Your task to perform on an android device: turn on airplane mode Image 0: 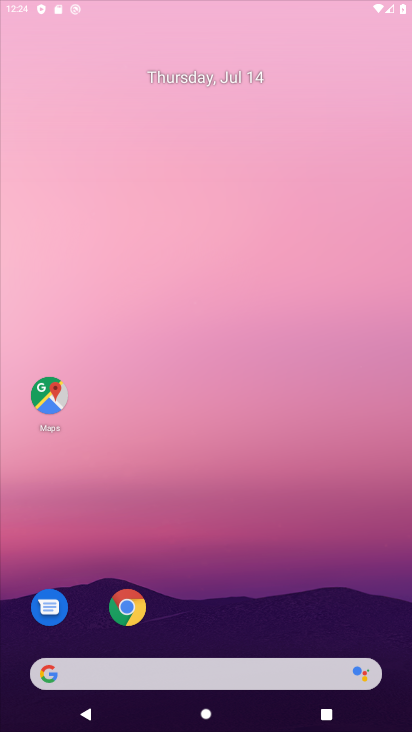
Step 0: drag from (325, 235) to (409, 240)
Your task to perform on an android device: turn on airplane mode Image 1: 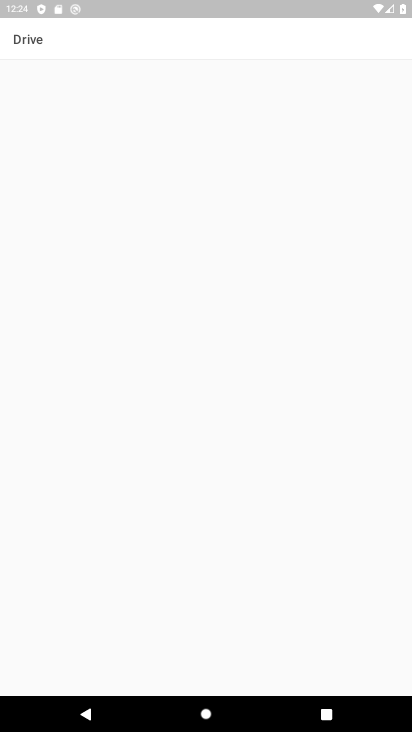
Step 1: press home button
Your task to perform on an android device: turn on airplane mode Image 2: 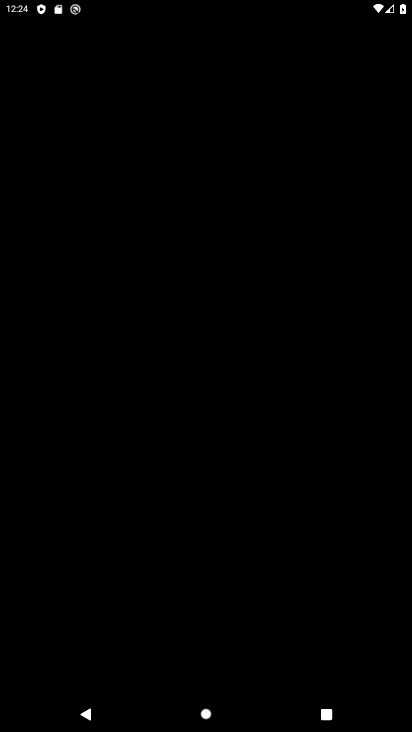
Step 2: drag from (409, 240) to (408, 515)
Your task to perform on an android device: turn on airplane mode Image 3: 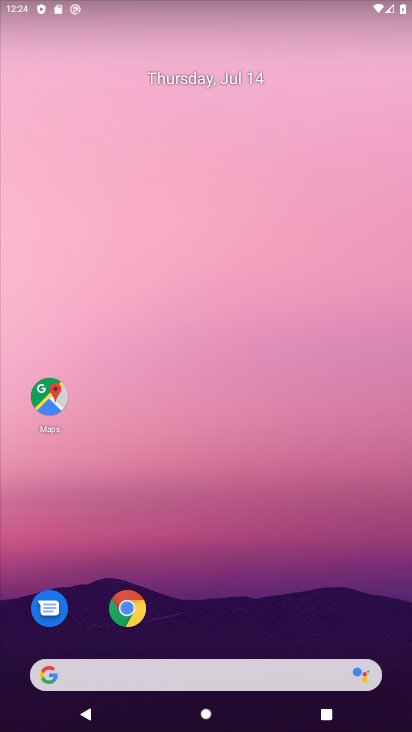
Step 3: drag from (277, 633) to (300, 280)
Your task to perform on an android device: turn on airplane mode Image 4: 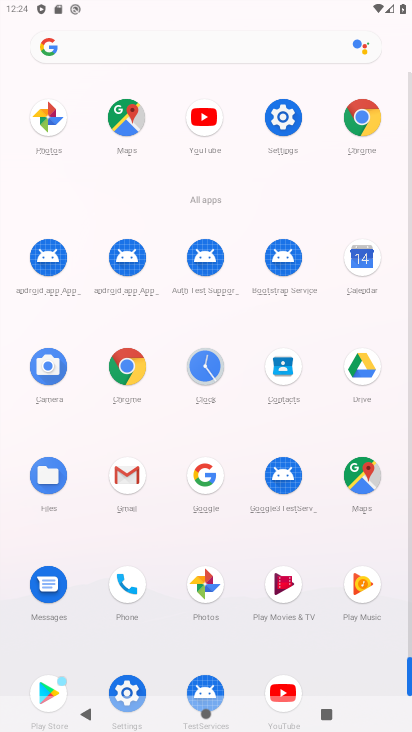
Step 4: click (277, 120)
Your task to perform on an android device: turn on airplane mode Image 5: 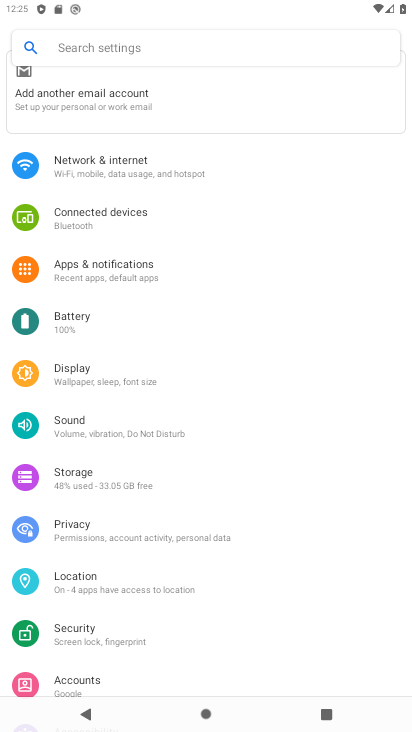
Step 5: drag from (362, 608) to (339, 458)
Your task to perform on an android device: turn on airplane mode Image 6: 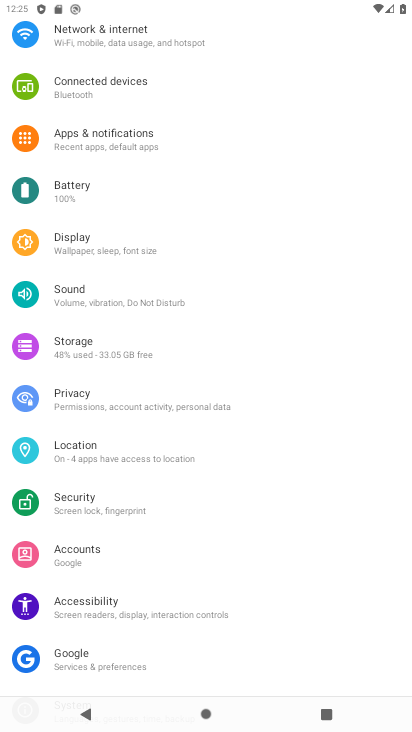
Step 6: drag from (337, 546) to (337, 463)
Your task to perform on an android device: turn on airplane mode Image 7: 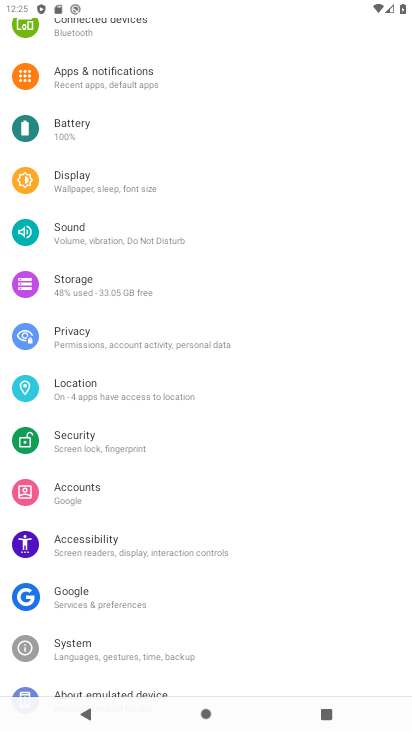
Step 7: drag from (292, 619) to (311, 496)
Your task to perform on an android device: turn on airplane mode Image 8: 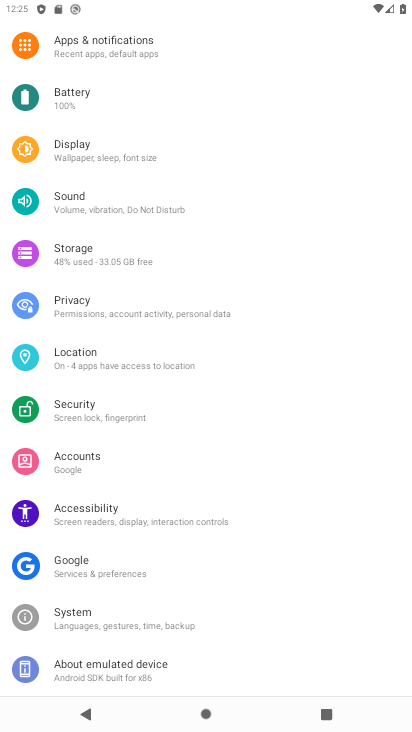
Step 8: drag from (312, 427) to (320, 516)
Your task to perform on an android device: turn on airplane mode Image 9: 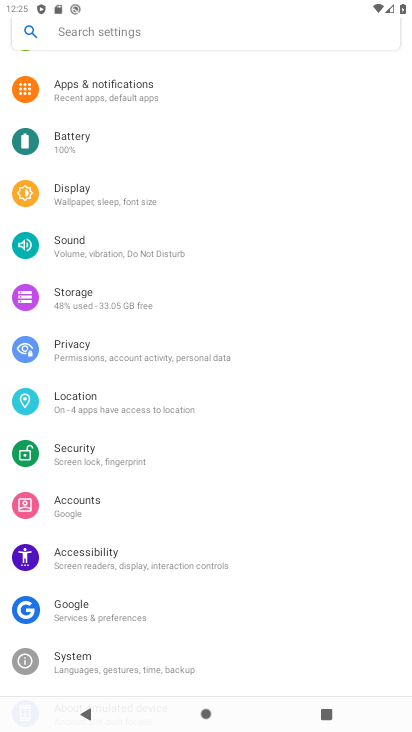
Step 9: drag from (315, 388) to (316, 465)
Your task to perform on an android device: turn on airplane mode Image 10: 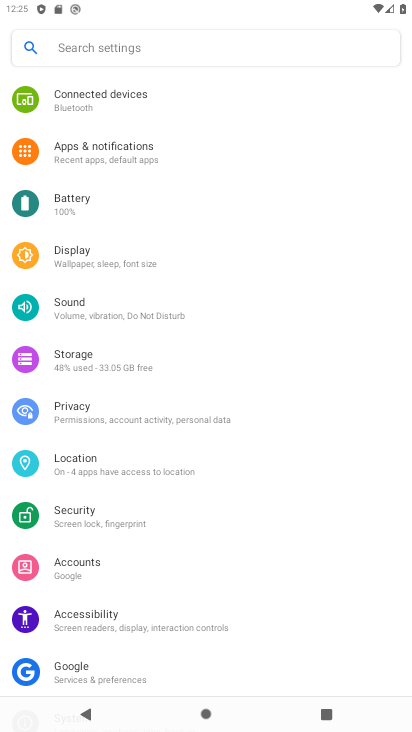
Step 10: drag from (315, 363) to (322, 449)
Your task to perform on an android device: turn on airplane mode Image 11: 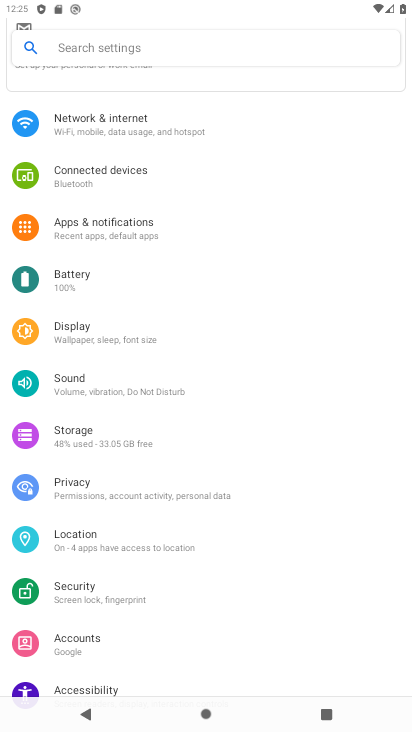
Step 11: drag from (320, 363) to (319, 467)
Your task to perform on an android device: turn on airplane mode Image 12: 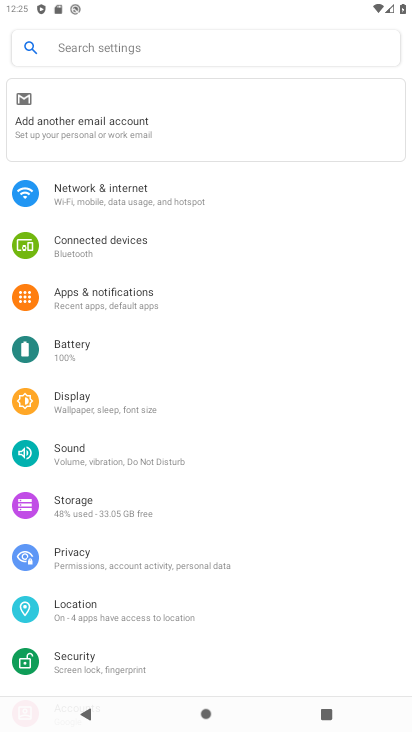
Step 12: drag from (317, 349) to (317, 437)
Your task to perform on an android device: turn on airplane mode Image 13: 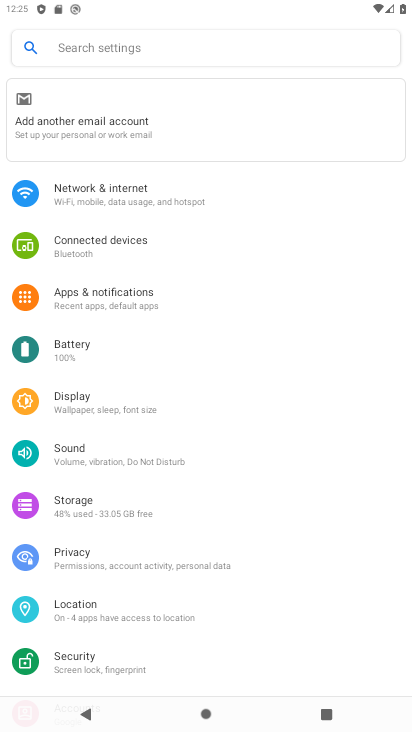
Step 13: click (244, 186)
Your task to perform on an android device: turn on airplane mode Image 14: 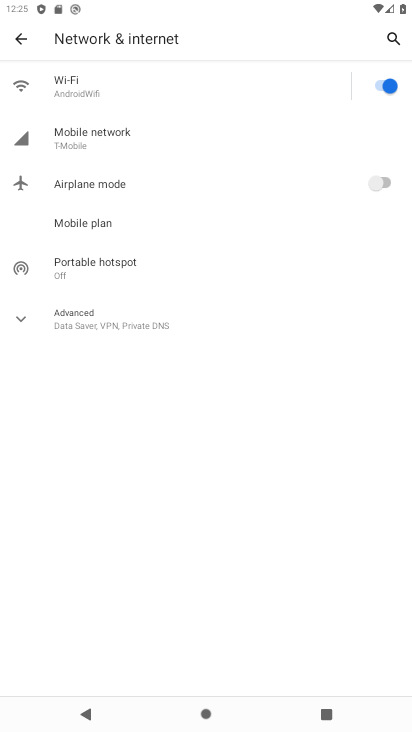
Step 14: click (371, 186)
Your task to perform on an android device: turn on airplane mode Image 15: 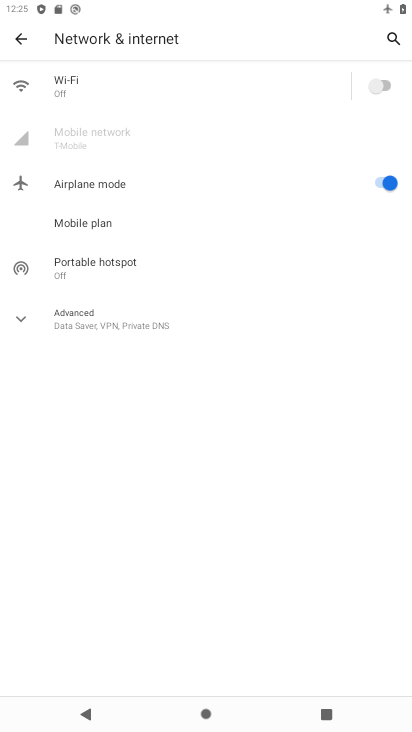
Step 15: task complete